Your task to perform on an android device: change notifications settings Image 0: 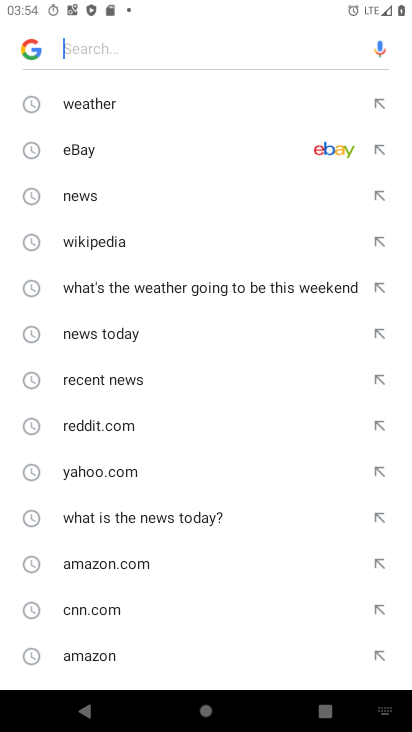
Step 0: press home button
Your task to perform on an android device: change notifications settings Image 1: 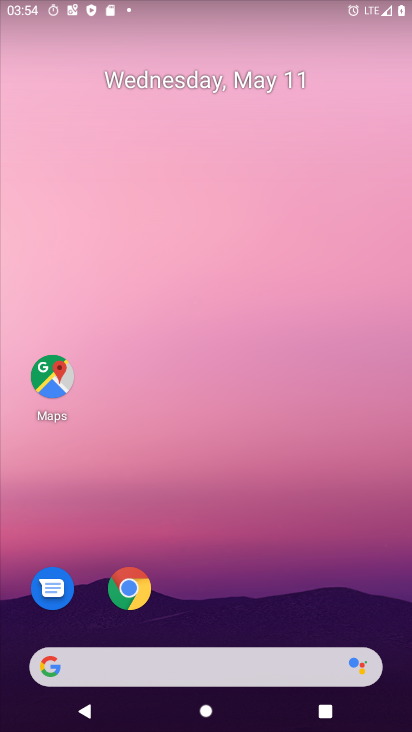
Step 1: drag from (246, 567) to (255, 208)
Your task to perform on an android device: change notifications settings Image 2: 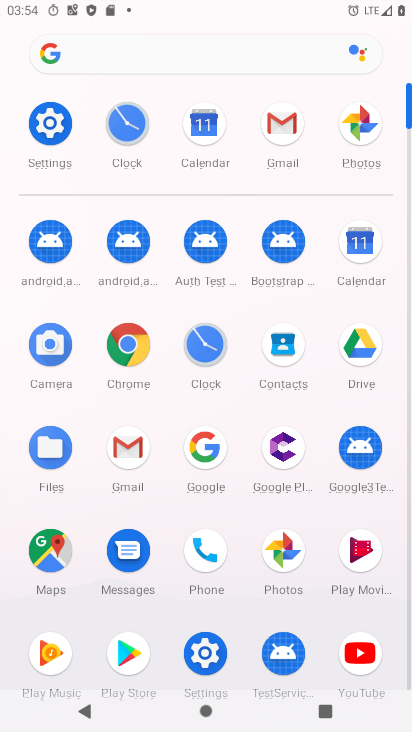
Step 2: click (22, 147)
Your task to perform on an android device: change notifications settings Image 3: 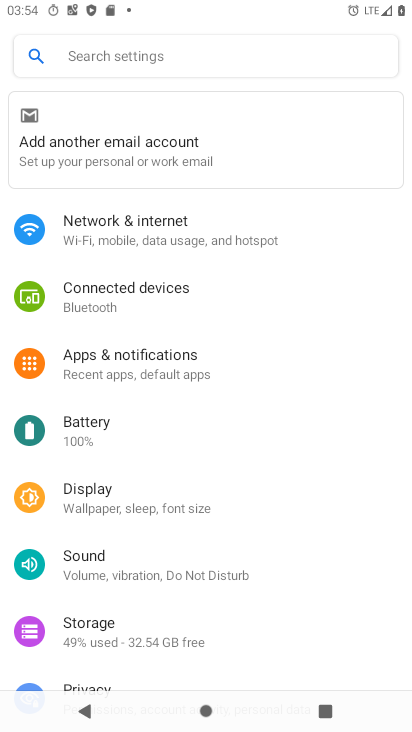
Step 3: click (144, 379)
Your task to perform on an android device: change notifications settings Image 4: 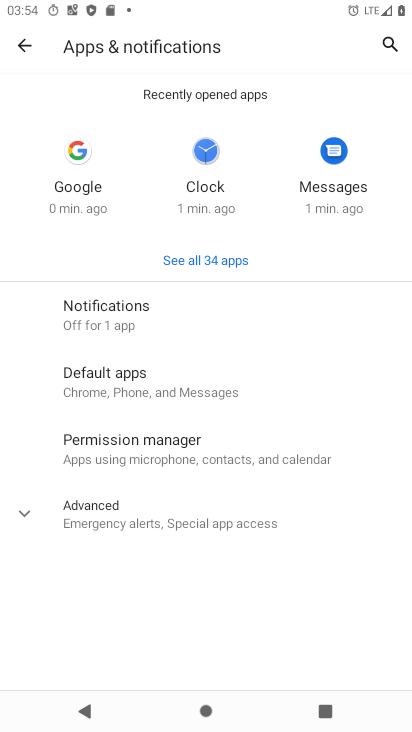
Step 4: click (136, 324)
Your task to perform on an android device: change notifications settings Image 5: 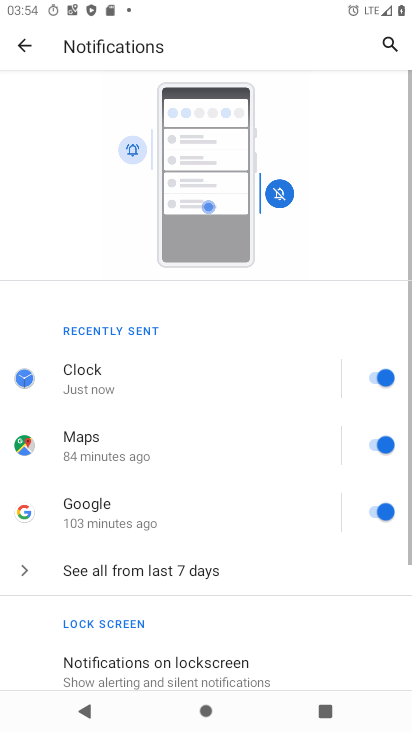
Step 5: task complete